Your task to perform on an android device: toggle location history Image 0: 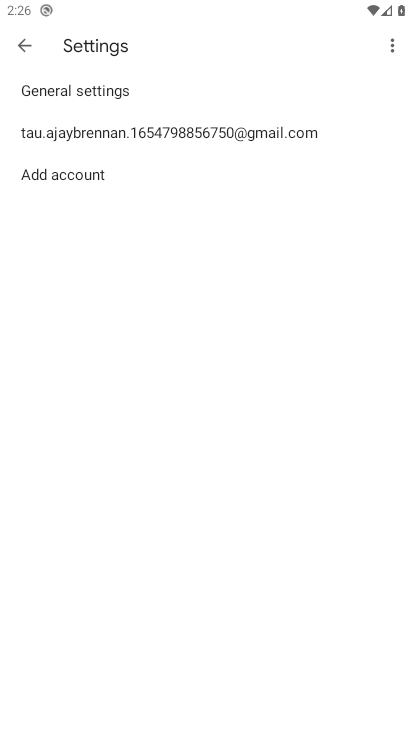
Step 0: press home button
Your task to perform on an android device: toggle location history Image 1: 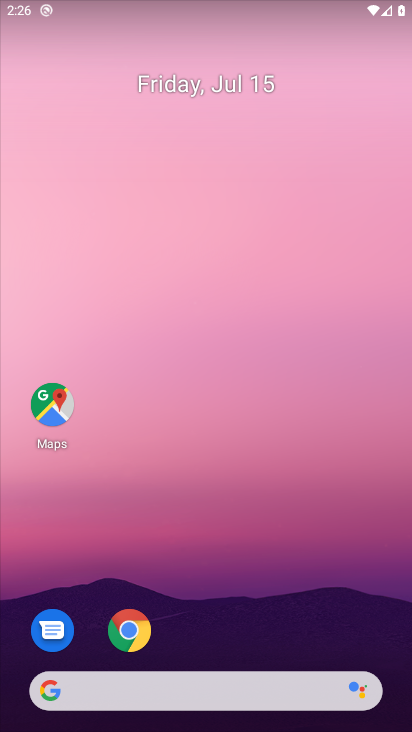
Step 1: drag from (253, 600) to (239, 42)
Your task to perform on an android device: toggle location history Image 2: 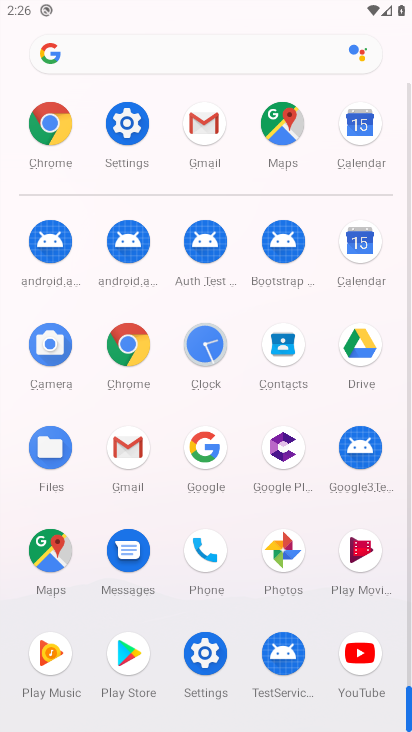
Step 2: click (127, 133)
Your task to perform on an android device: toggle location history Image 3: 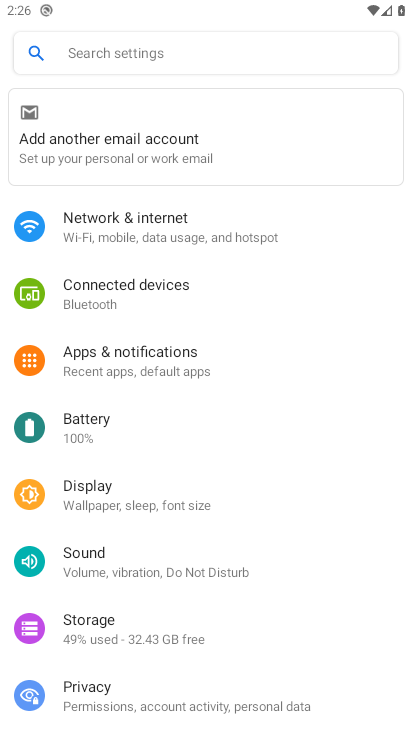
Step 3: drag from (341, 617) to (325, 177)
Your task to perform on an android device: toggle location history Image 4: 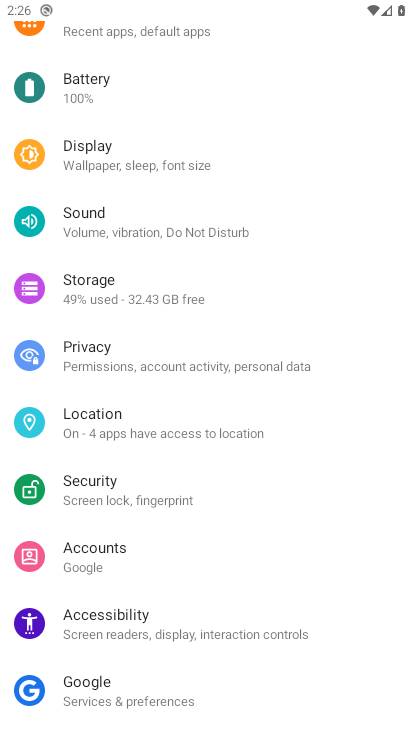
Step 4: click (119, 434)
Your task to perform on an android device: toggle location history Image 5: 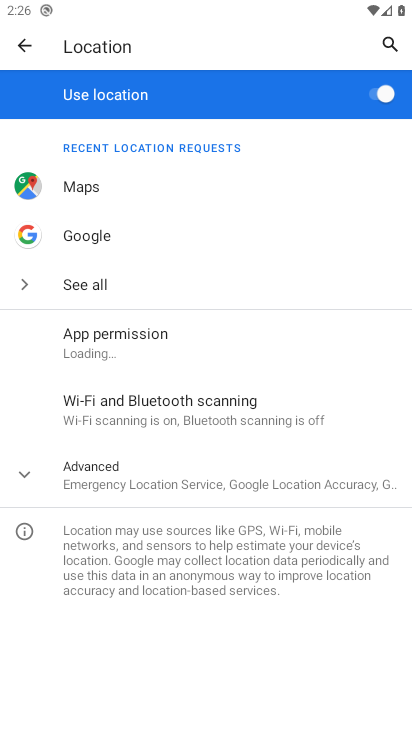
Step 5: click (35, 473)
Your task to perform on an android device: toggle location history Image 6: 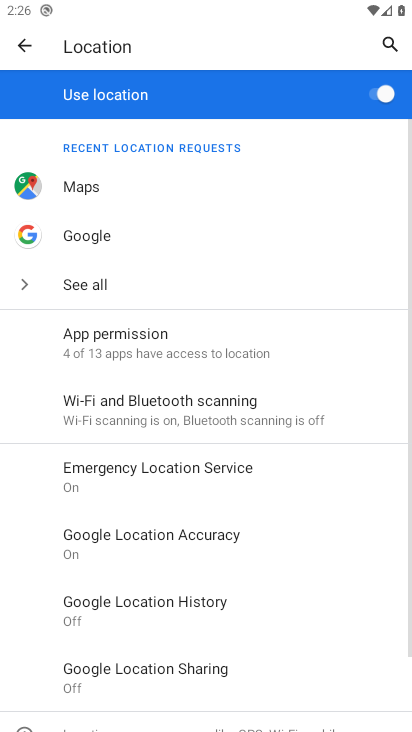
Step 6: click (192, 611)
Your task to perform on an android device: toggle location history Image 7: 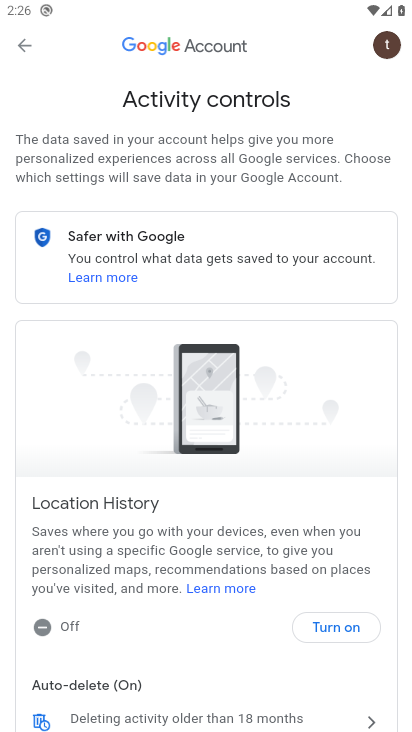
Step 7: click (335, 624)
Your task to perform on an android device: toggle location history Image 8: 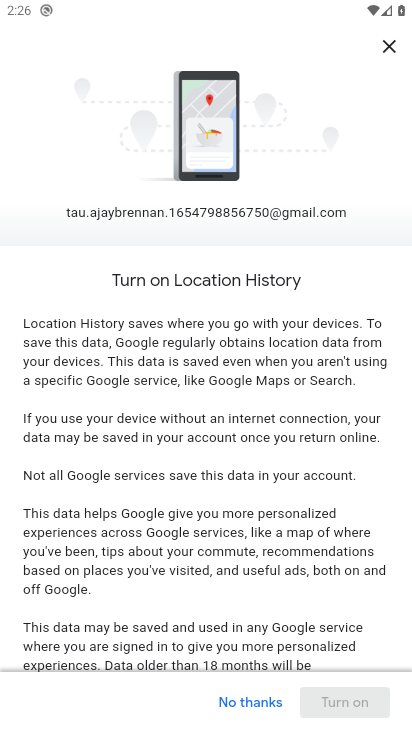
Step 8: drag from (333, 491) to (308, 88)
Your task to perform on an android device: toggle location history Image 9: 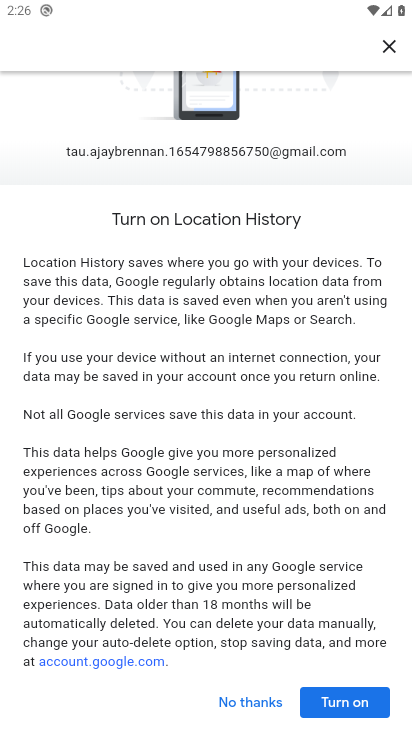
Step 9: click (384, 698)
Your task to perform on an android device: toggle location history Image 10: 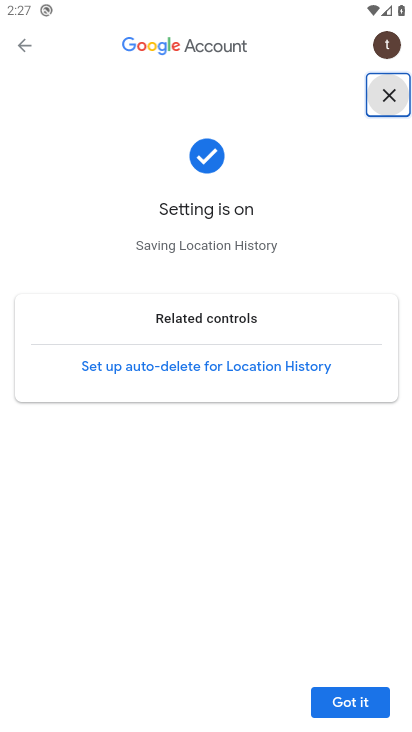
Step 10: click (348, 712)
Your task to perform on an android device: toggle location history Image 11: 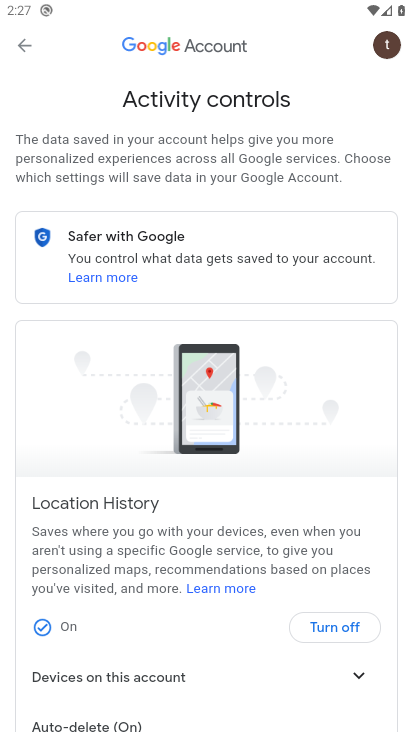
Step 11: task complete